Your task to perform on an android device: Go to Google Image 0: 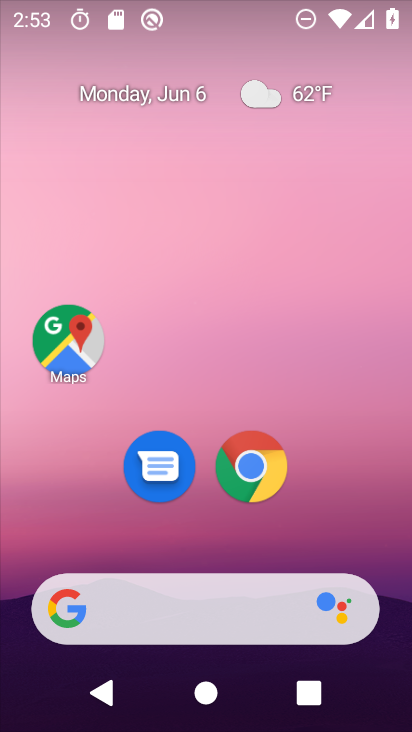
Step 0: drag from (231, 543) to (246, 133)
Your task to perform on an android device: Go to Google Image 1: 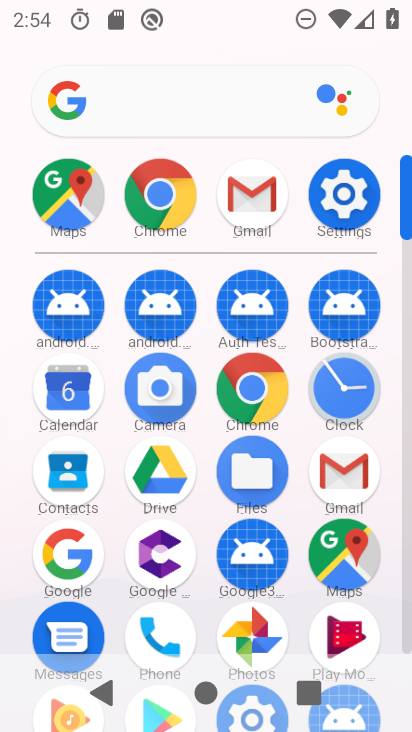
Step 1: click (64, 562)
Your task to perform on an android device: Go to Google Image 2: 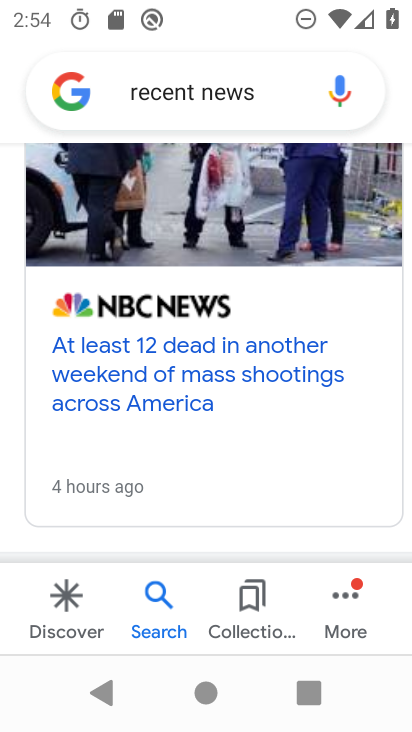
Step 2: click (280, 100)
Your task to perform on an android device: Go to Google Image 3: 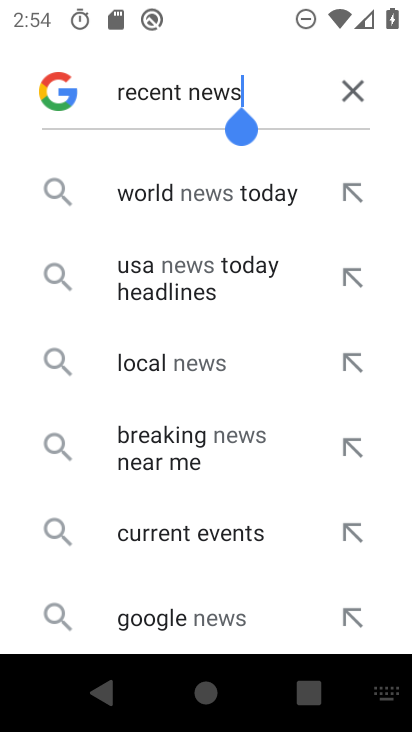
Step 3: task complete